Your task to perform on an android device: turn on sleep mode Image 0: 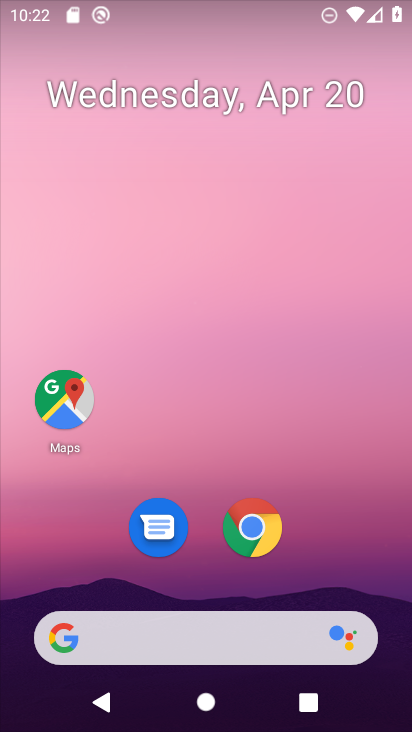
Step 0: drag from (205, 573) to (287, 20)
Your task to perform on an android device: turn on sleep mode Image 1: 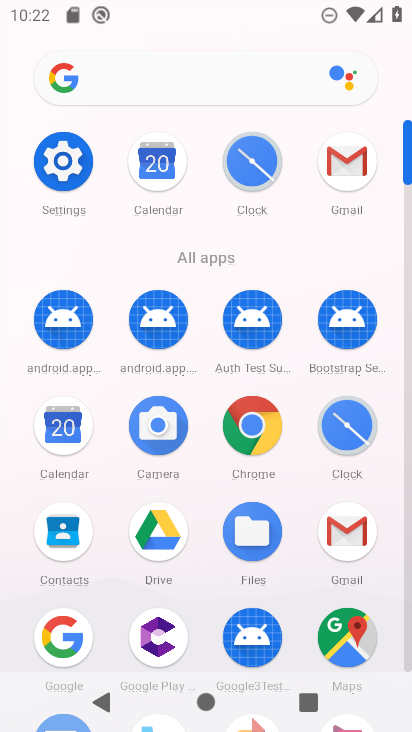
Step 1: click (54, 175)
Your task to perform on an android device: turn on sleep mode Image 2: 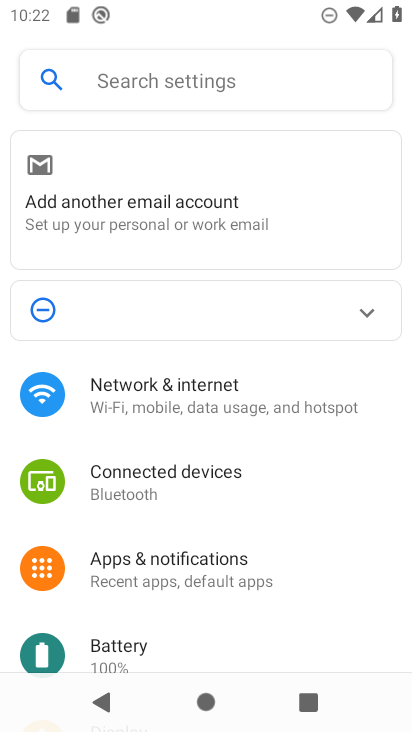
Step 2: click (232, 82)
Your task to perform on an android device: turn on sleep mode Image 3: 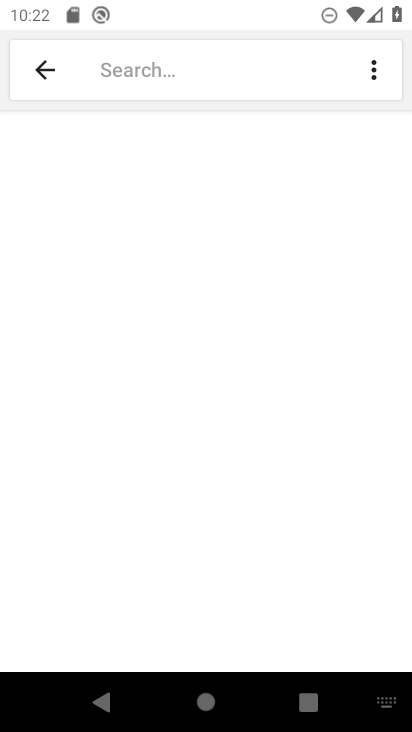
Step 3: type "sleep mode"
Your task to perform on an android device: turn on sleep mode Image 4: 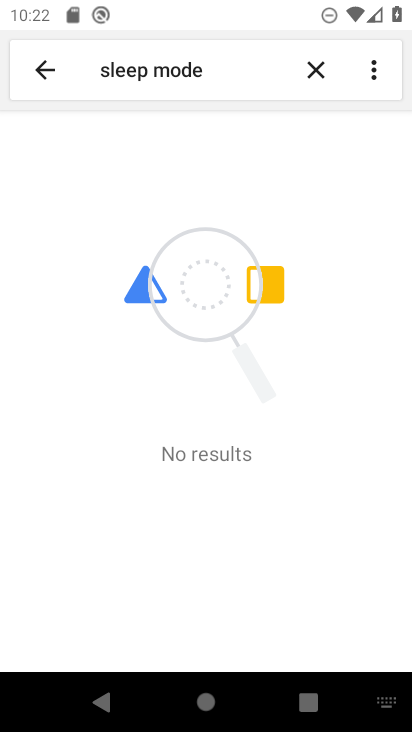
Step 4: task complete